Your task to perform on an android device: Open Chrome and go to settings Image 0: 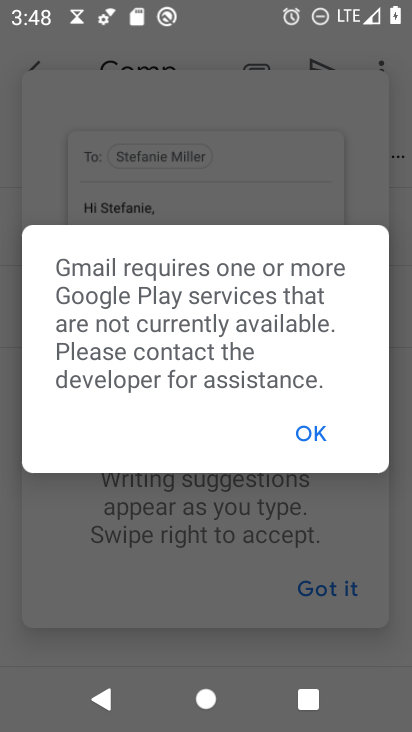
Step 0: press home button
Your task to perform on an android device: Open Chrome and go to settings Image 1: 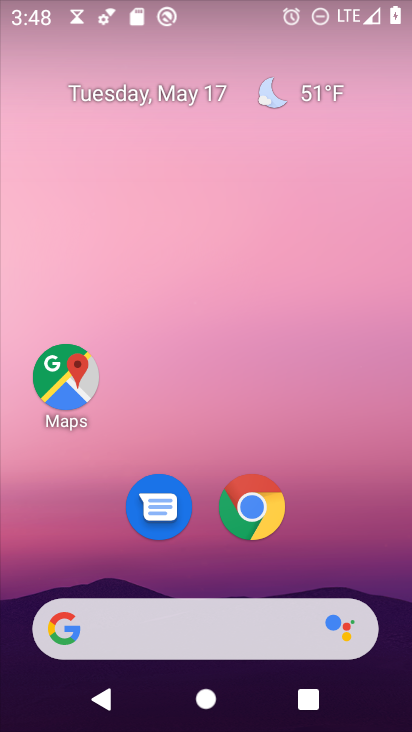
Step 1: click (245, 500)
Your task to perform on an android device: Open Chrome and go to settings Image 2: 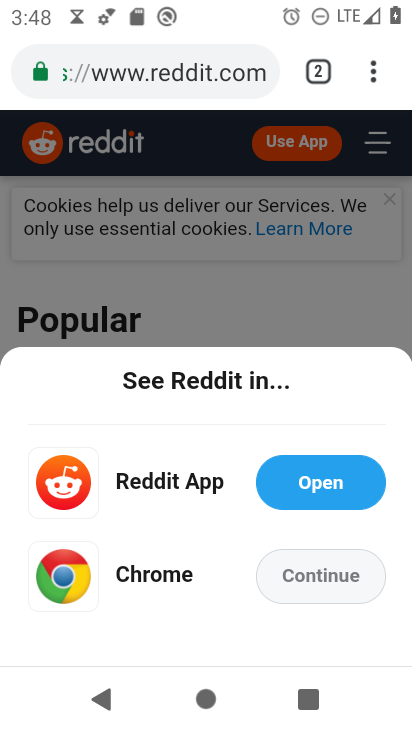
Step 2: click (369, 79)
Your task to perform on an android device: Open Chrome and go to settings Image 3: 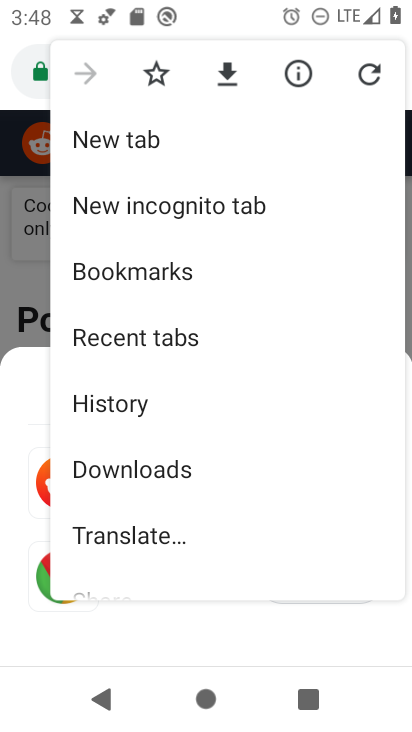
Step 3: drag from (147, 532) to (141, 271)
Your task to perform on an android device: Open Chrome and go to settings Image 4: 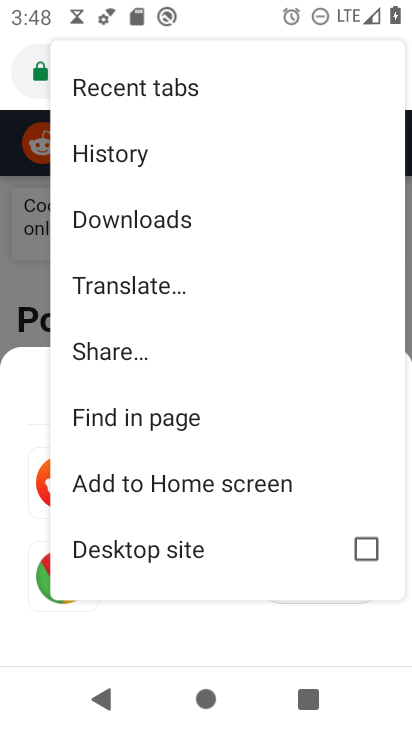
Step 4: drag from (186, 538) to (225, 217)
Your task to perform on an android device: Open Chrome and go to settings Image 5: 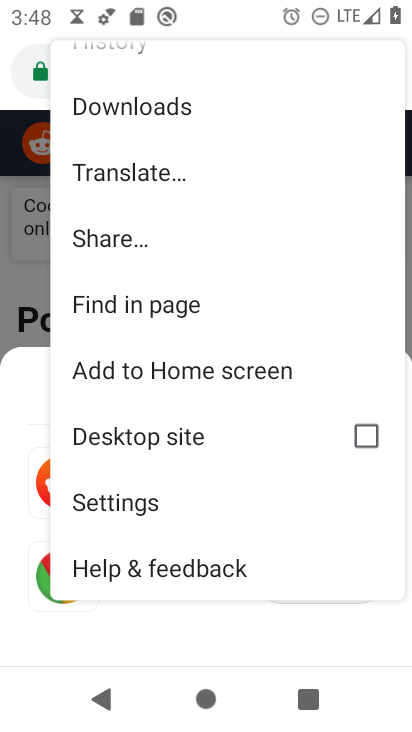
Step 5: click (180, 512)
Your task to perform on an android device: Open Chrome and go to settings Image 6: 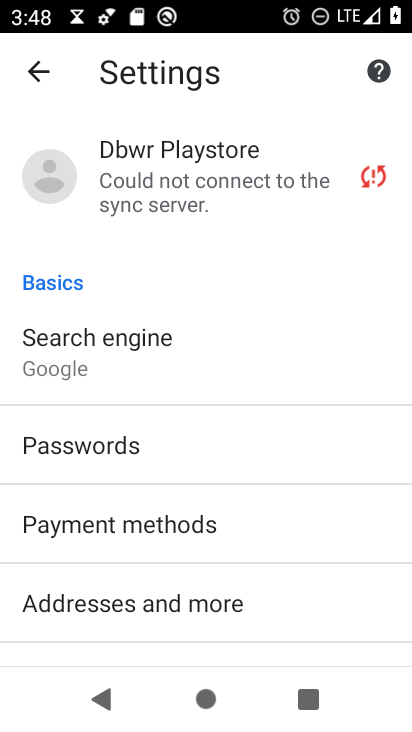
Step 6: task complete